Your task to perform on an android device: change keyboard looks Image 0: 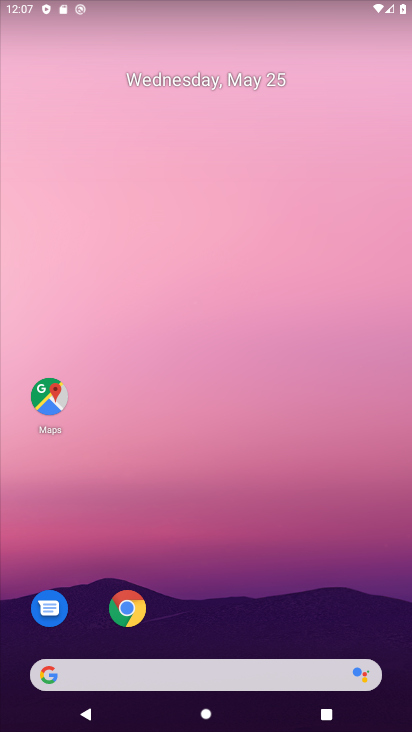
Step 0: drag from (302, 620) to (233, 182)
Your task to perform on an android device: change keyboard looks Image 1: 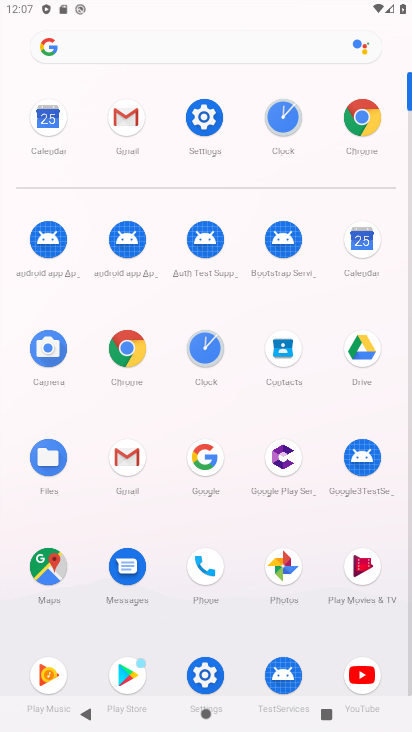
Step 1: click (207, 139)
Your task to perform on an android device: change keyboard looks Image 2: 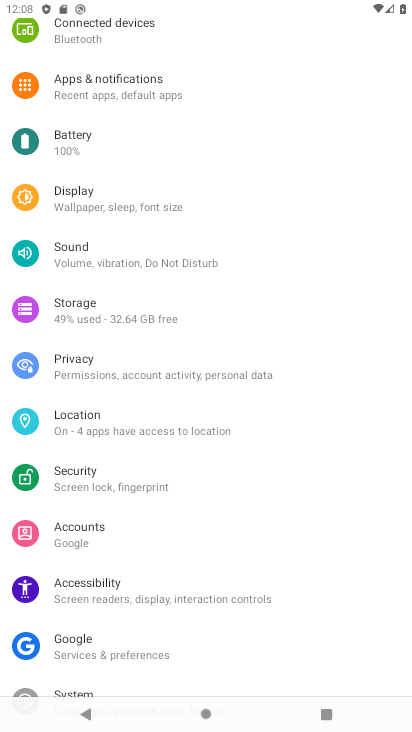
Step 2: drag from (199, 622) to (223, 291)
Your task to perform on an android device: change keyboard looks Image 3: 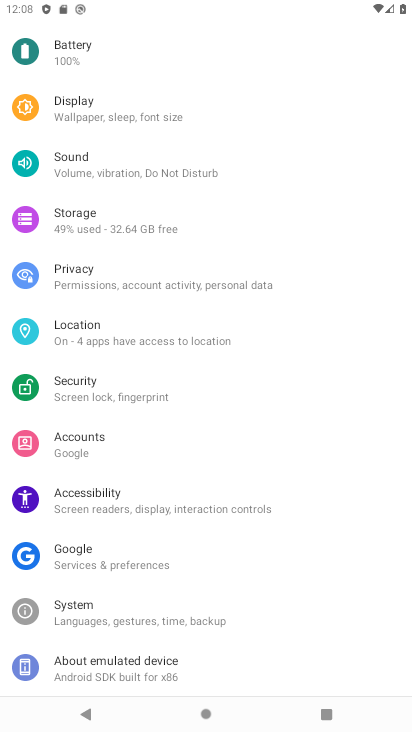
Step 3: click (158, 618)
Your task to perform on an android device: change keyboard looks Image 4: 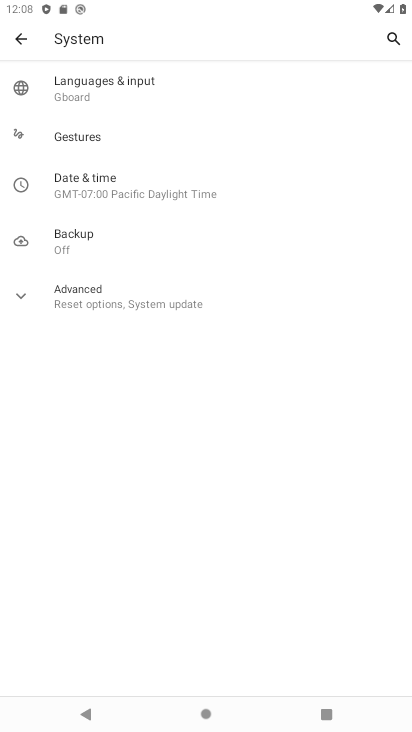
Step 4: click (118, 92)
Your task to perform on an android device: change keyboard looks Image 5: 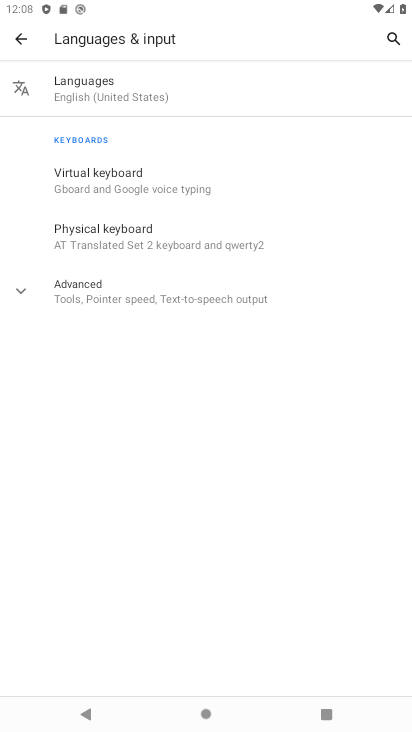
Step 5: click (140, 188)
Your task to perform on an android device: change keyboard looks Image 6: 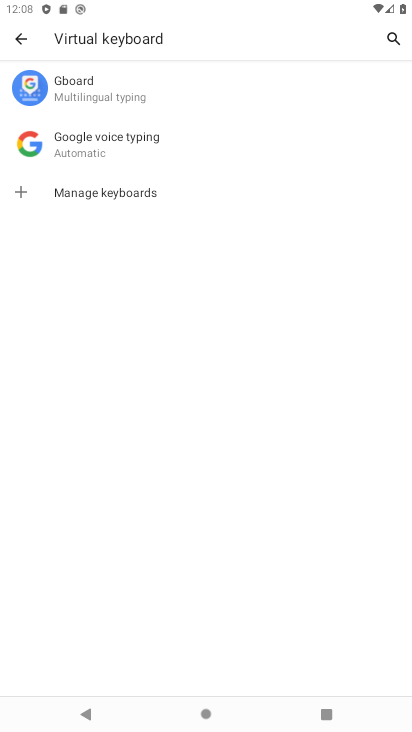
Step 6: click (91, 103)
Your task to perform on an android device: change keyboard looks Image 7: 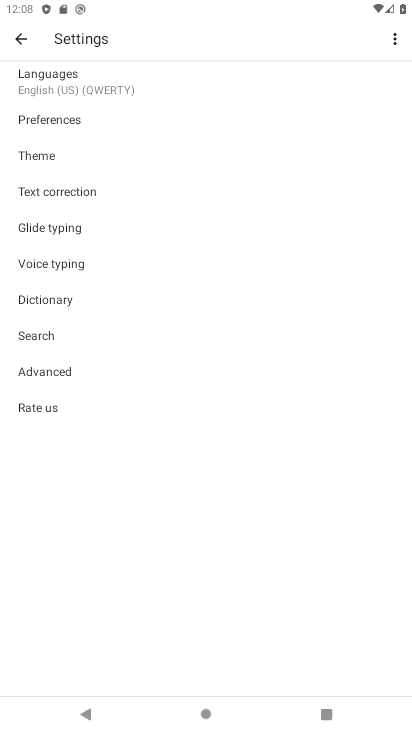
Step 7: click (74, 168)
Your task to perform on an android device: change keyboard looks Image 8: 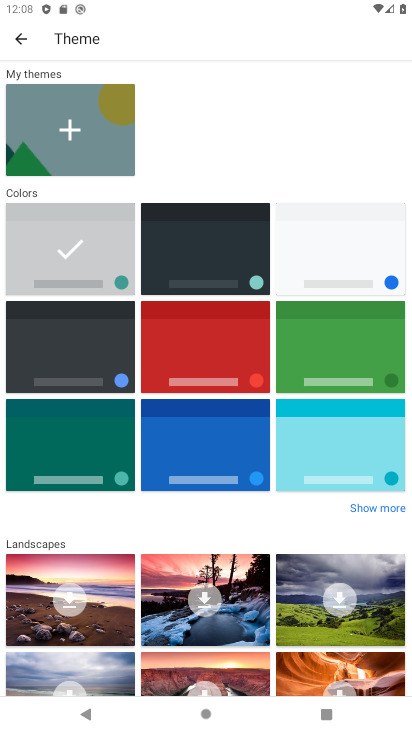
Step 8: click (227, 295)
Your task to perform on an android device: change keyboard looks Image 9: 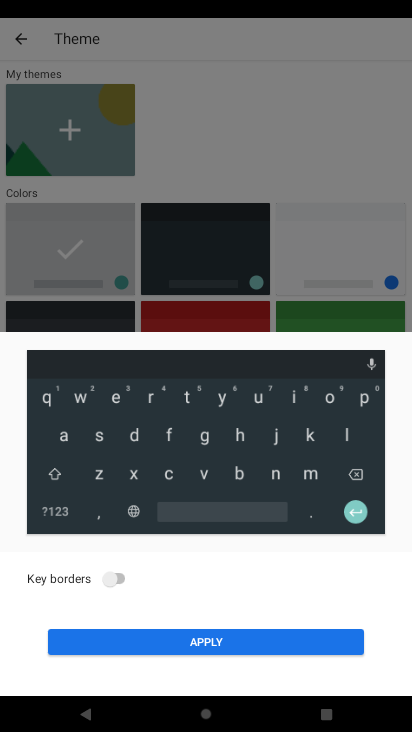
Step 9: click (251, 632)
Your task to perform on an android device: change keyboard looks Image 10: 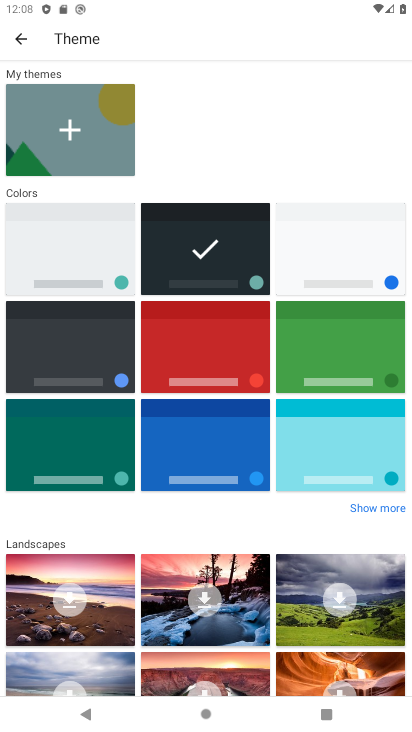
Step 10: task complete